Your task to perform on an android device: check battery use Image 0: 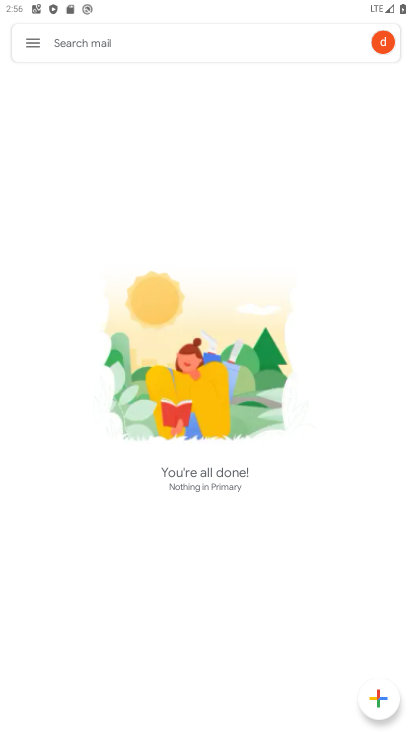
Step 0: press home button
Your task to perform on an android device: check battery use Image 1: 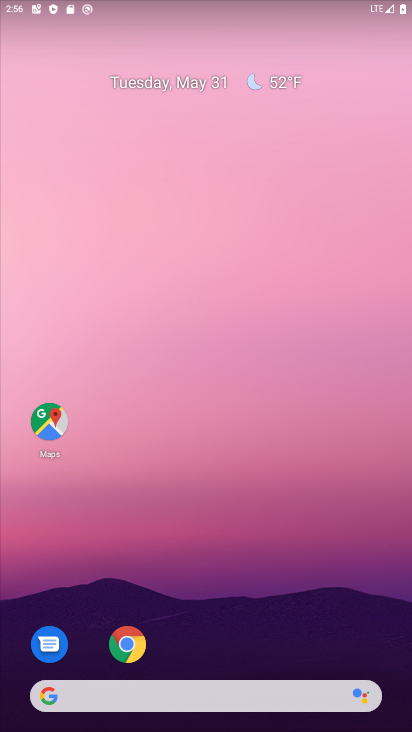
Step 1: drag from (134, 724) to (139, 33)
Your task to perform on an android device: check battery use Image 2: 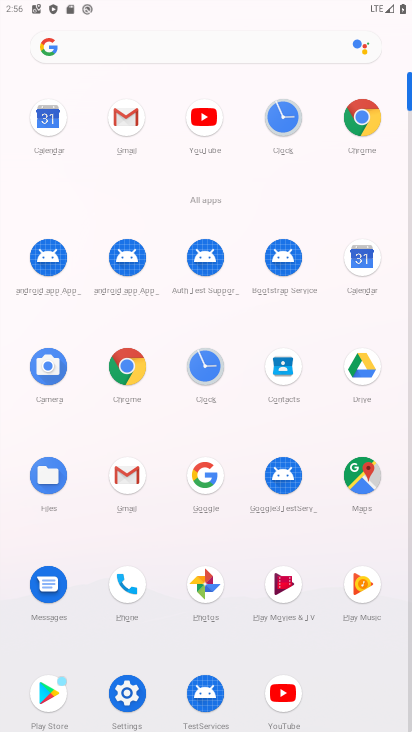
Step 2: click (119, 699)
Your task to perform on an android device: check battery use Image 3: 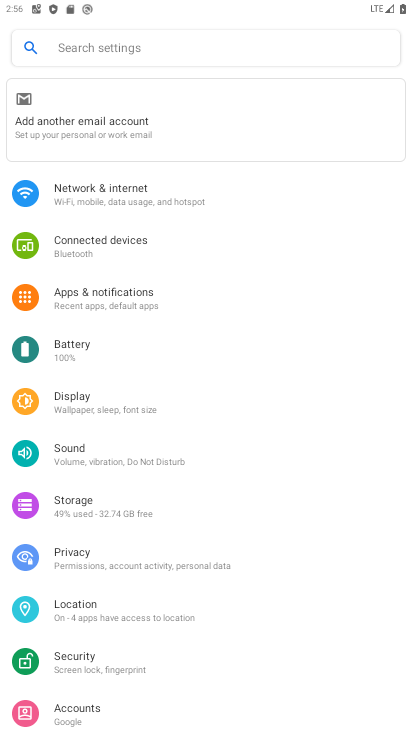
Step 3: click (103, 351)
Your task to perform on an android device: check battery use Image 4: 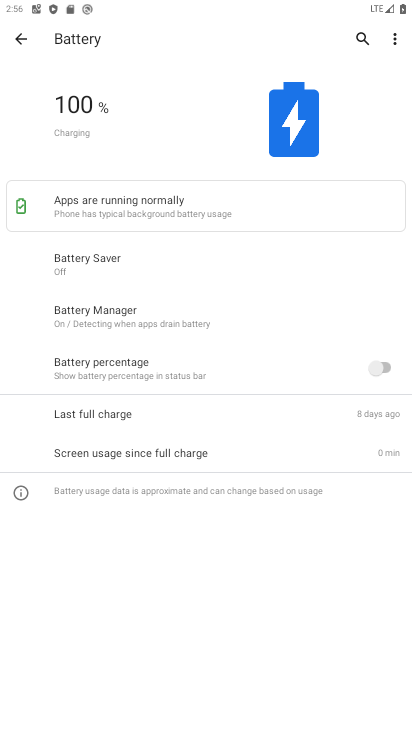
Step 4: click (400, 37)
Your task to perform on an android device: check battery use Image 5: 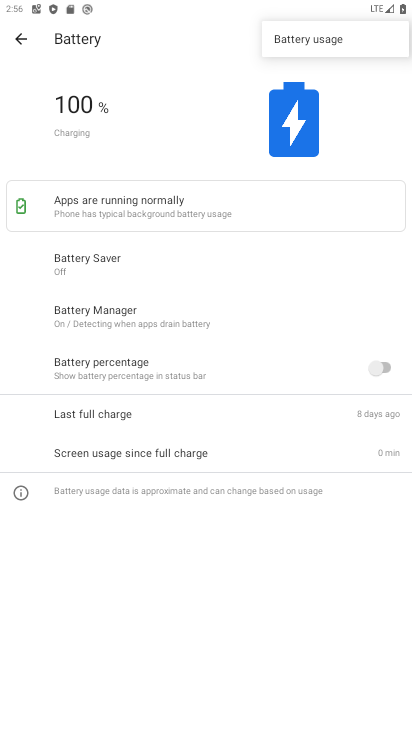
Step 5: click (348, 47)
Your task to perform on an android device: check battery use Image 6: 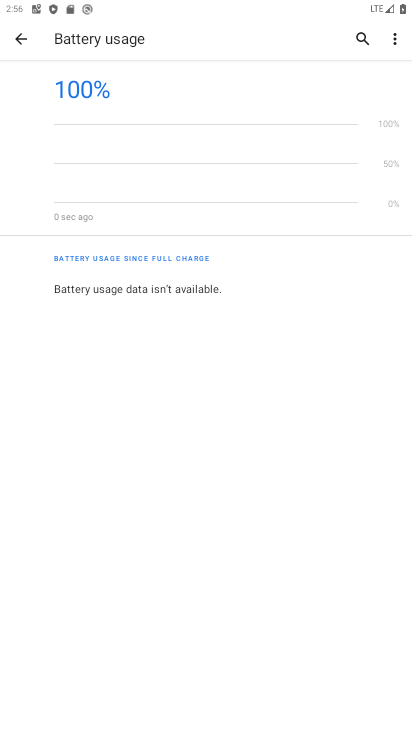
Step 6: task complete